Your task to perform on an android device: toggle airplane mode Image 0: 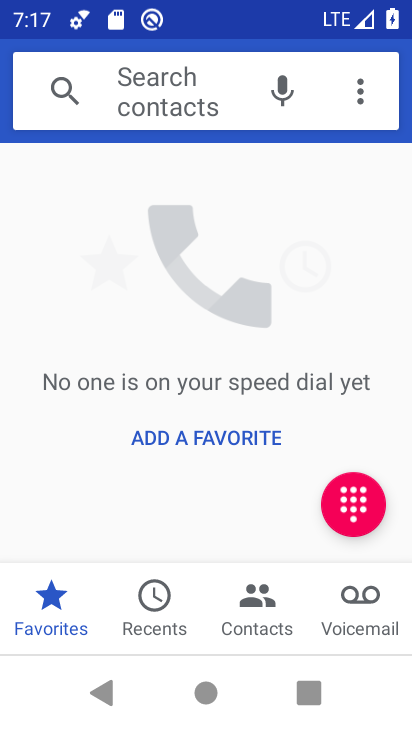
Step 0: press home button
Your task to perform on an android device: toggle airplane mode Image 1: 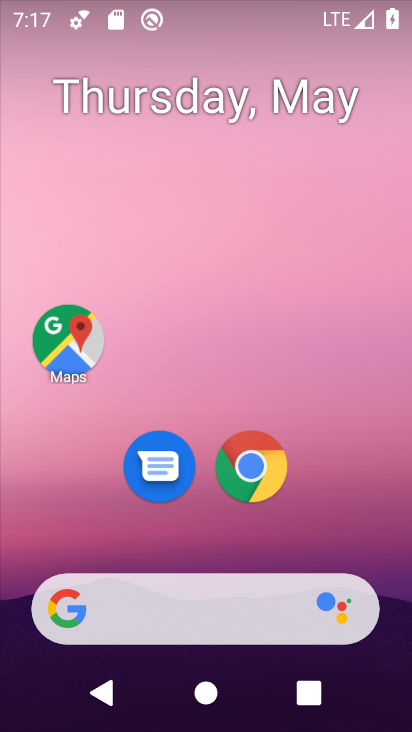
Step 1: drag from (331, 541) to (290, 144)
Your task to perform on an android device: toggle airplane mode Image 2: 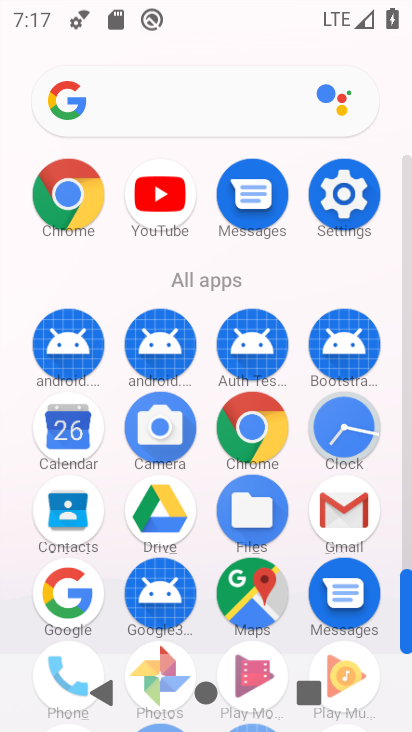
Step 2: click (342, 204)
Your task to perform on an android device: toggle airplane mode Image 3: 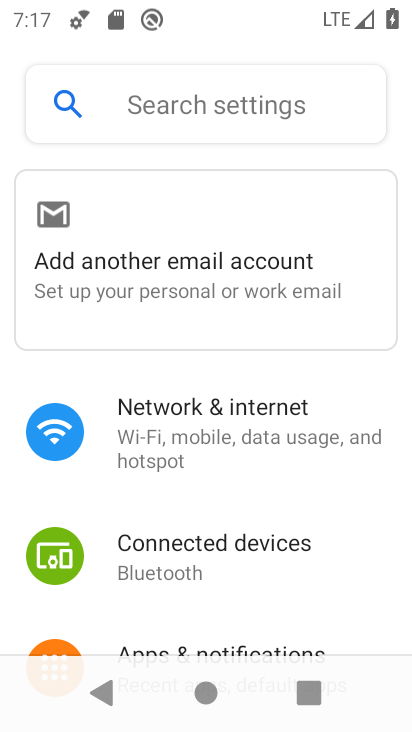
Step 3: click (274, 439)
Your task to perform on an android device: toggle airplane mode Image 4: 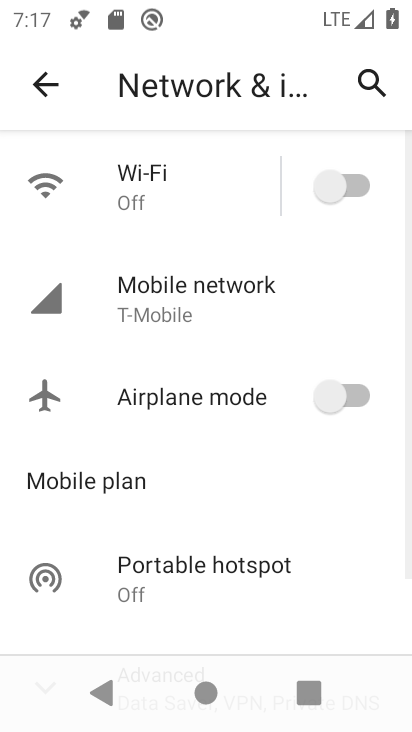
Step 4: click (316, 417)
Your task to perform on an android device: toggle airplane mode Image 5: 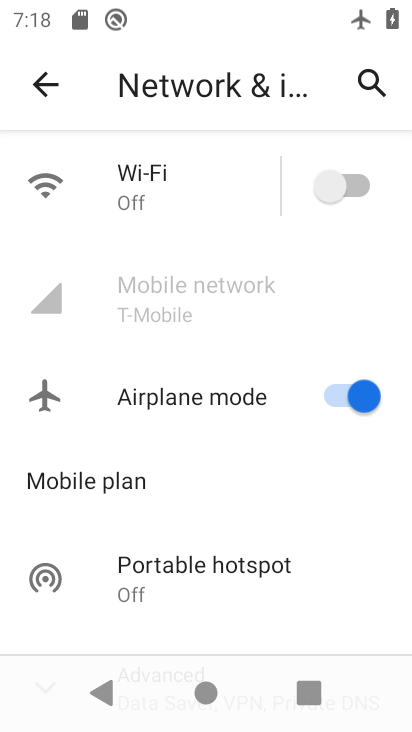
Step 5: task complete